Your task to perform on an android device: uninstall "Google News" Image 0: 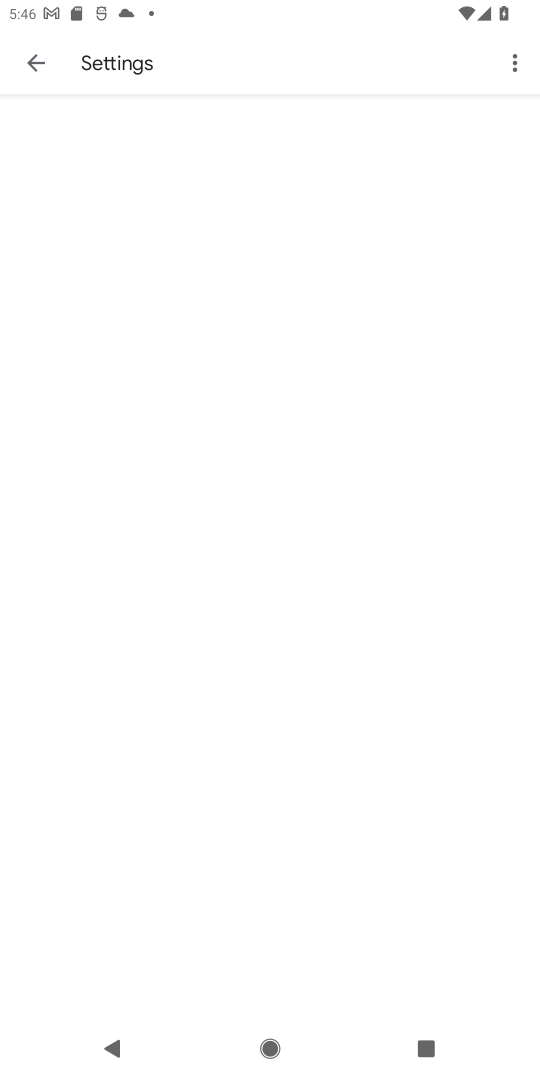
Step 0: click (44, 51)
Your task to perform on an android device: uninstall "Google News" Image 1: 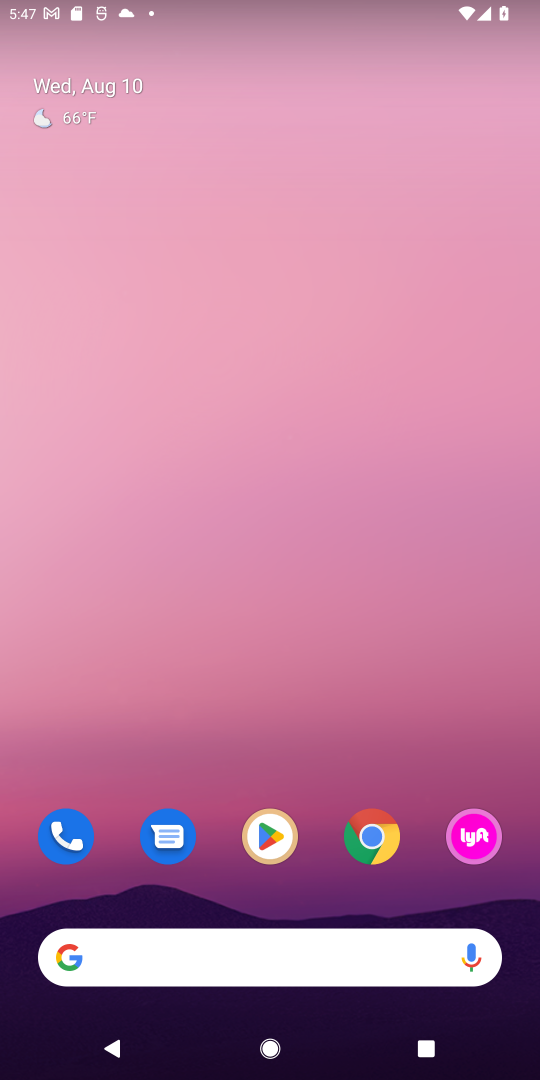
Step 1: drag from (263, 922) to (245, 24)
Your task to perform on an android device: uninstall "Google News" Image 2: 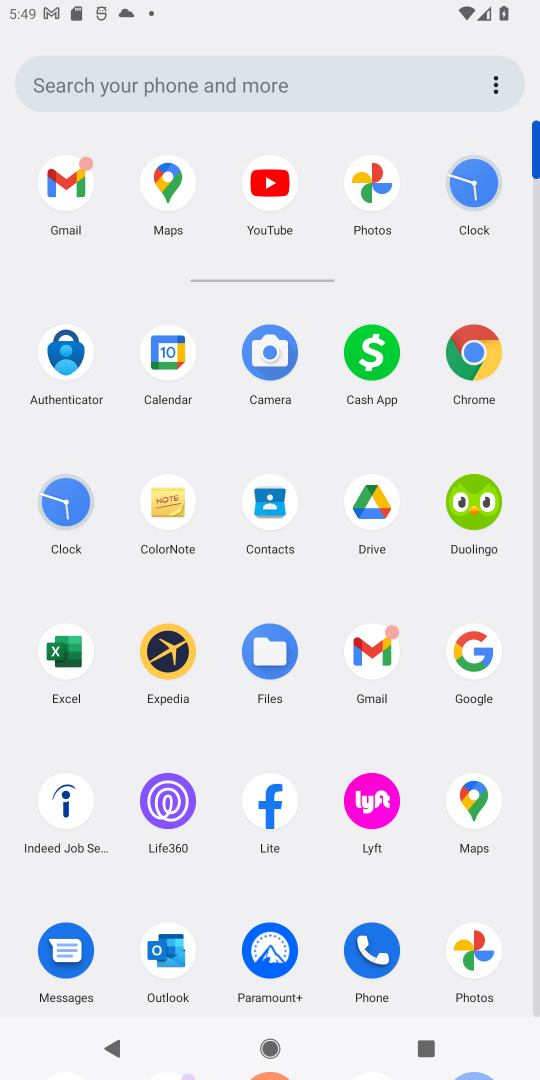
Step 2: drag from (174, 899) to (160, 104)
Your task to perform on an android device: uninstall "Google News" Image 3: 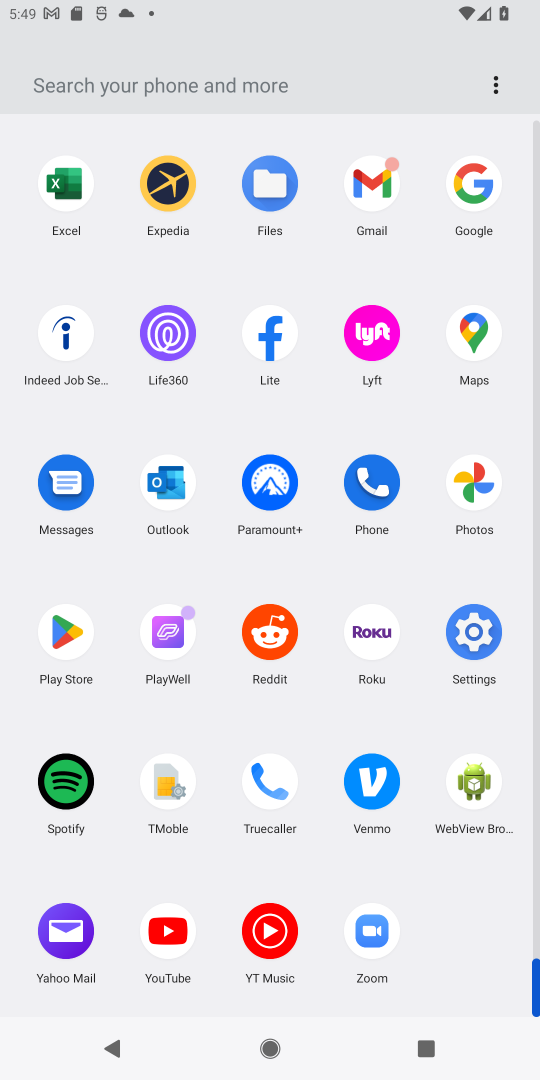
Step 3: click (56, 627)
Your task to perform on an android device: uninstall "Google News" Image 4: 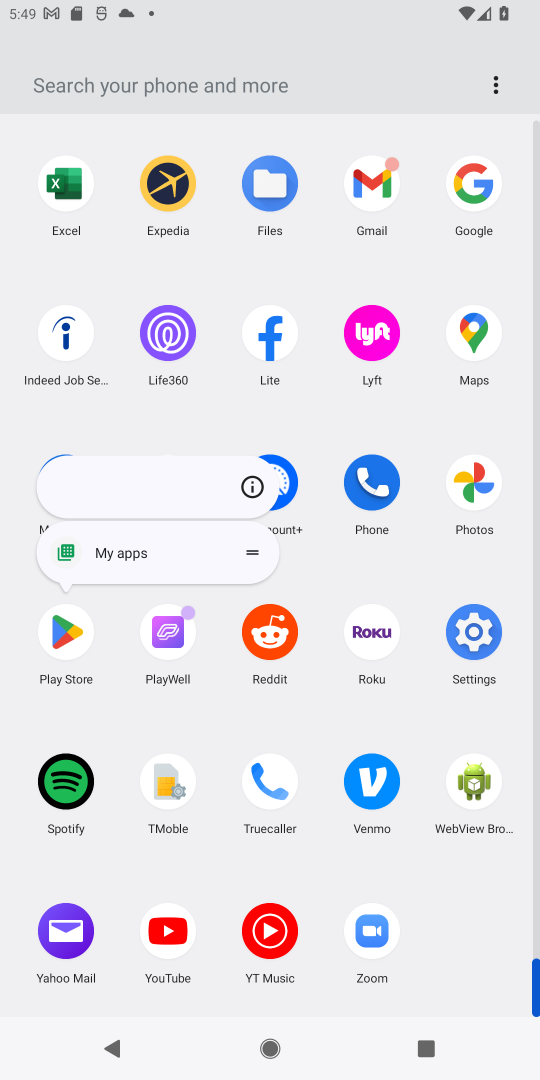
Step 4: click (45, 623)
Your task to perform on an android device: uninstall "Google News" Image 5: 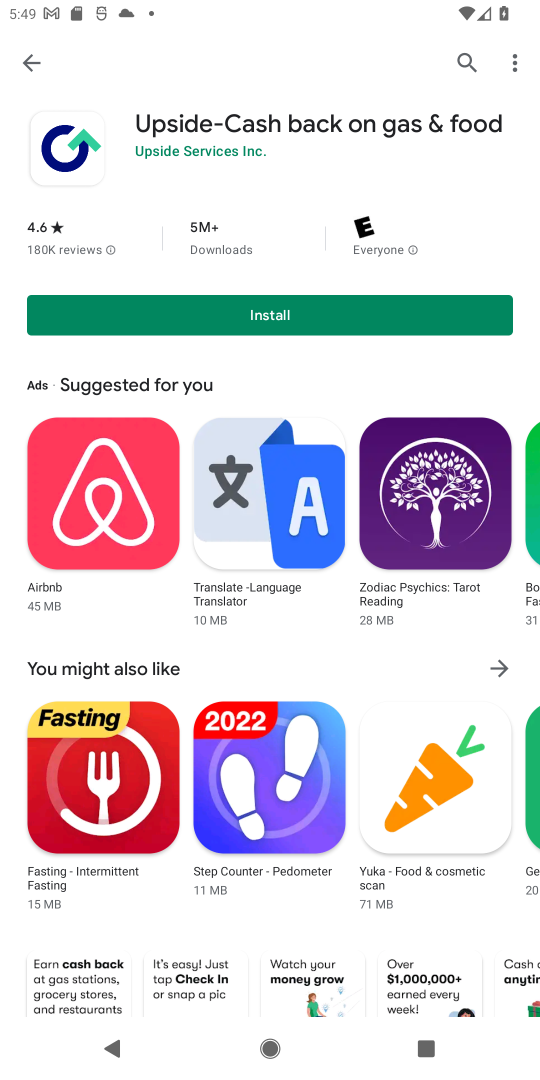
Step 5: click (49, 65)
Your task to perform on an android device: uninstall "Google News" Image 6: 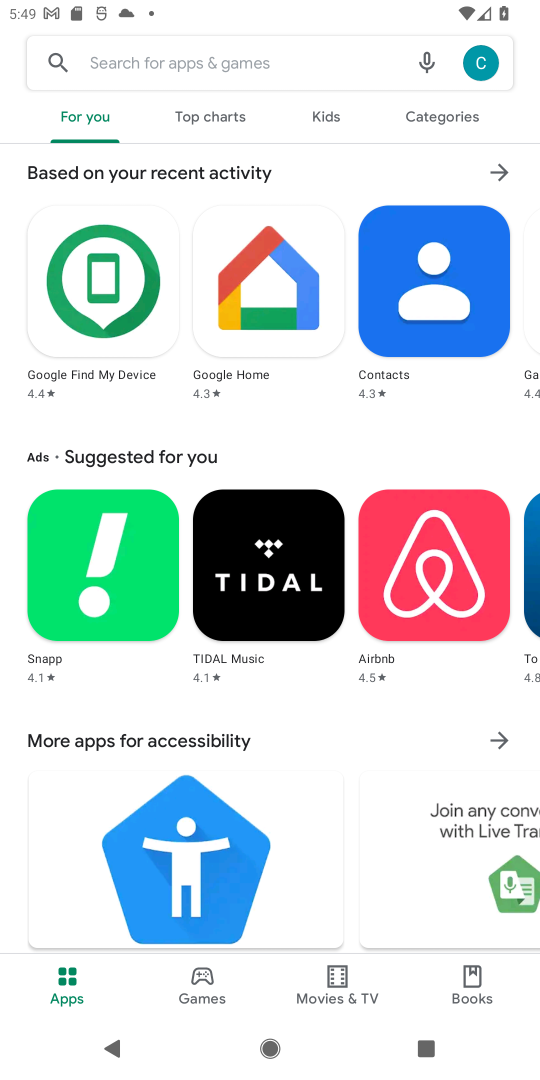
Step 6: click (257, 51)
Your task to perform on an android device: uninstall "Google News" Image 7: 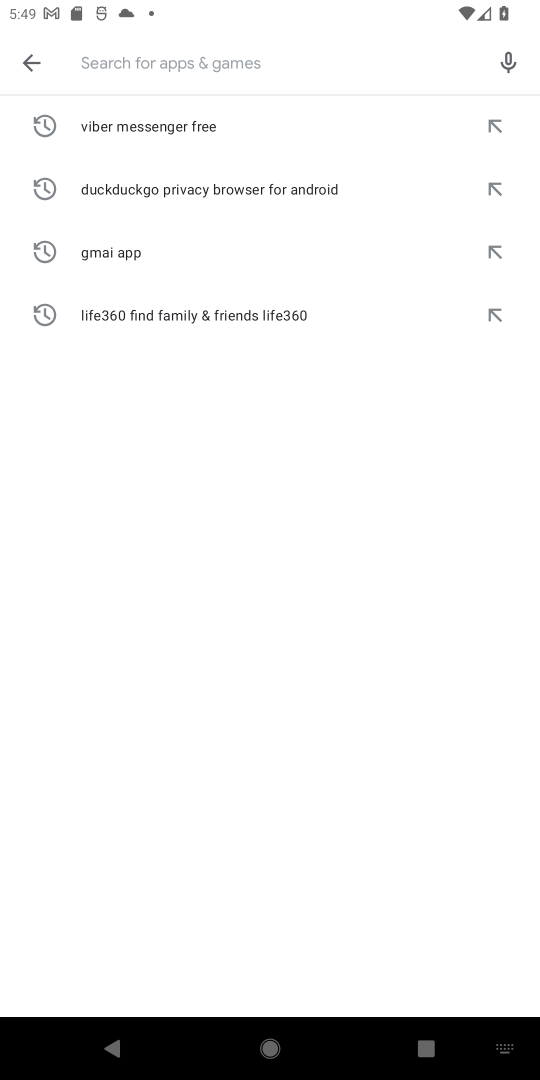
Step 7: type "Google News" "
Your task to perform on an android device: uninstall "Google News" Image 8: 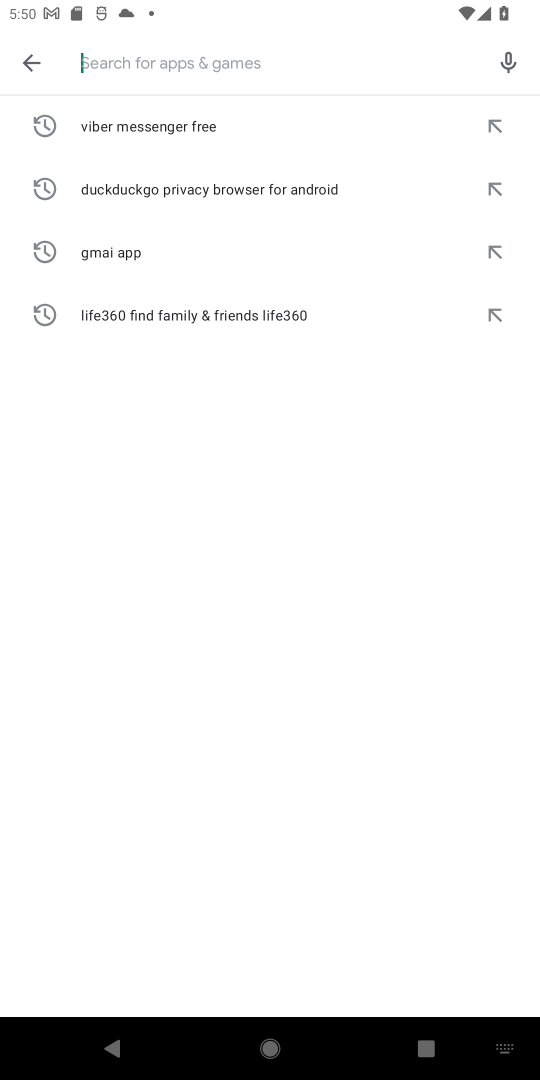
Step 8: click (314, 59)
Your task to perform on an android device: uninstall "Google News" Image 9: 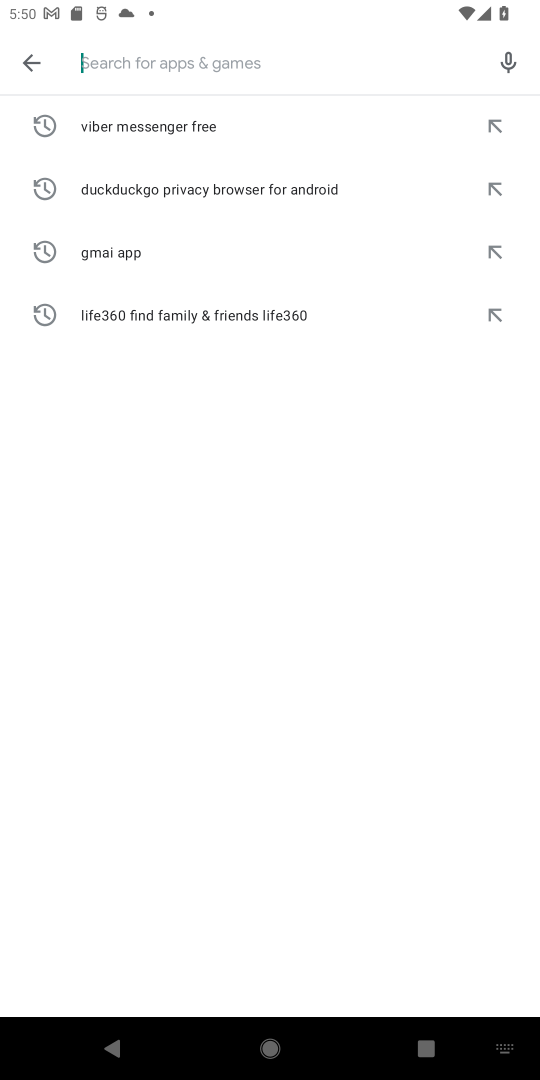
Step 9: type ""Google News" "
Your task to perform on an android device: uninstall "Google News" Image 10: 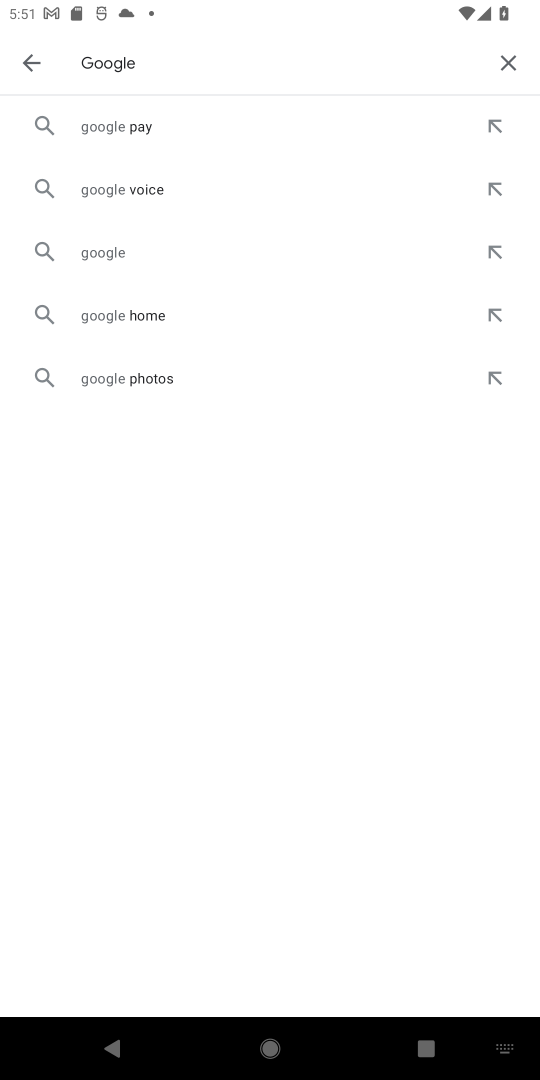
Step 10: click (244, 46)
Your task to perform on an android device: uninstall "Google News" Image 11: 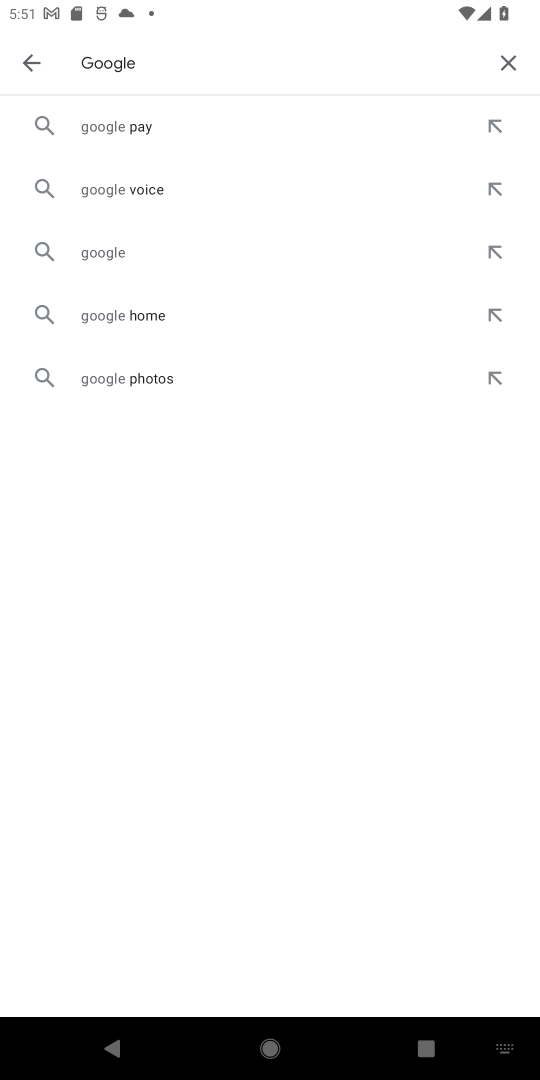
Step 11: type " news"
Your task to perform on an android device: uninstall "Google News" Image 12: 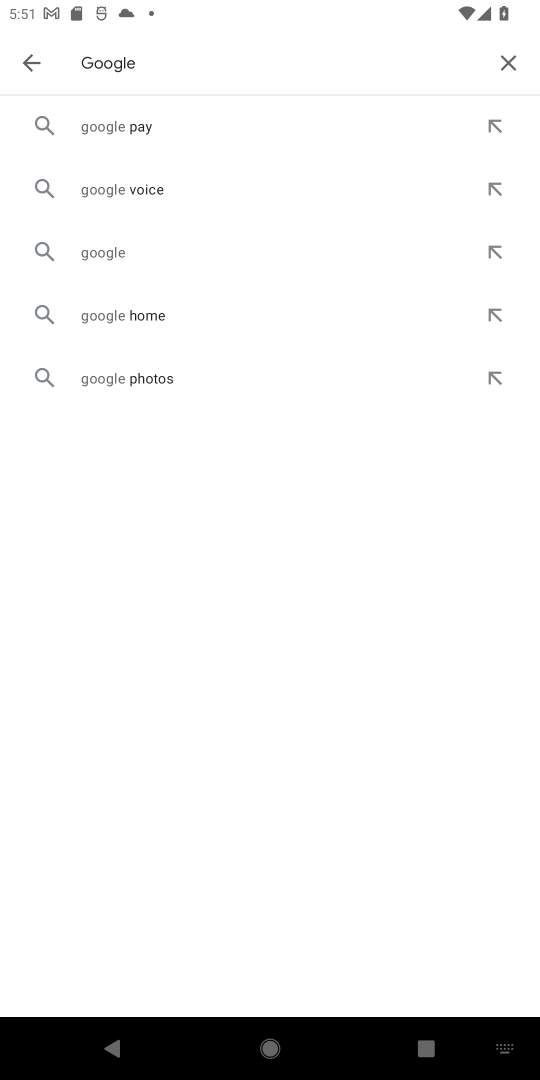
Step 12: click (34, 65)
Your task to perform on an android device: uninstall "Google News" Image 13: 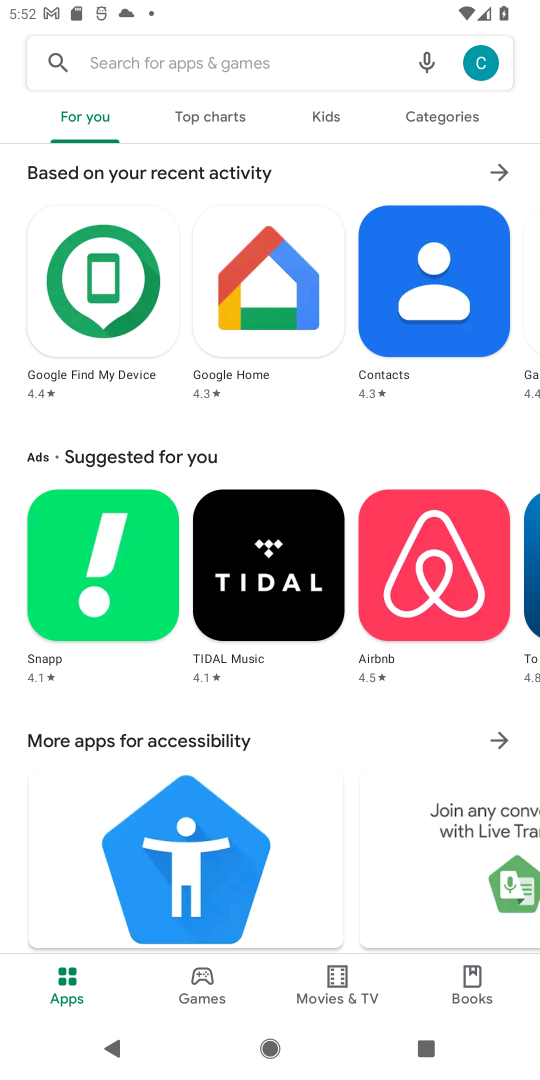
Step 13: click (231, 51)
Your task to perform on an android device: uninstall "Google News" Image 14: 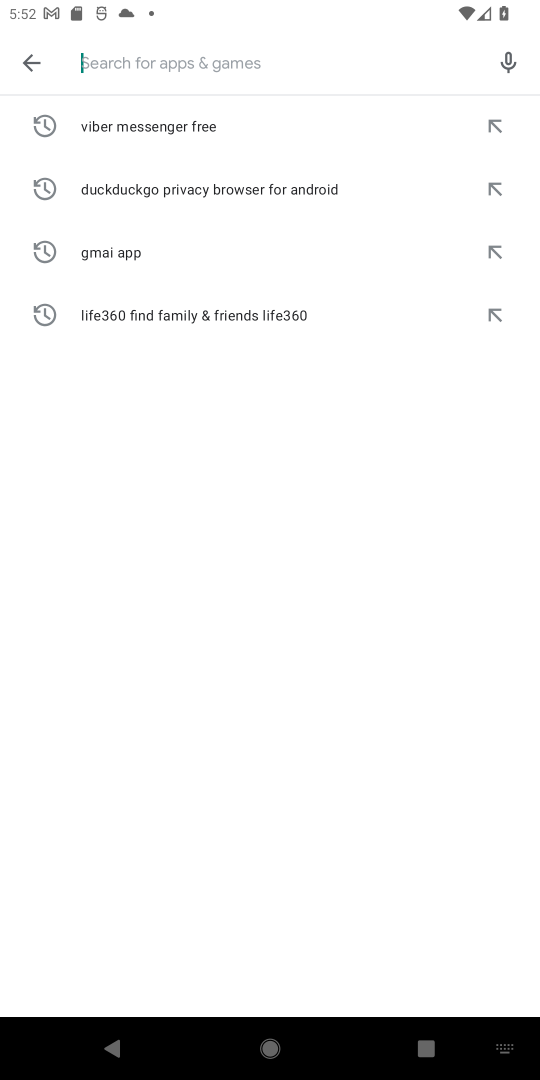
Step 14: type "Google News "
Your task to perform on an android device: uninstall "Google News" Image 15: 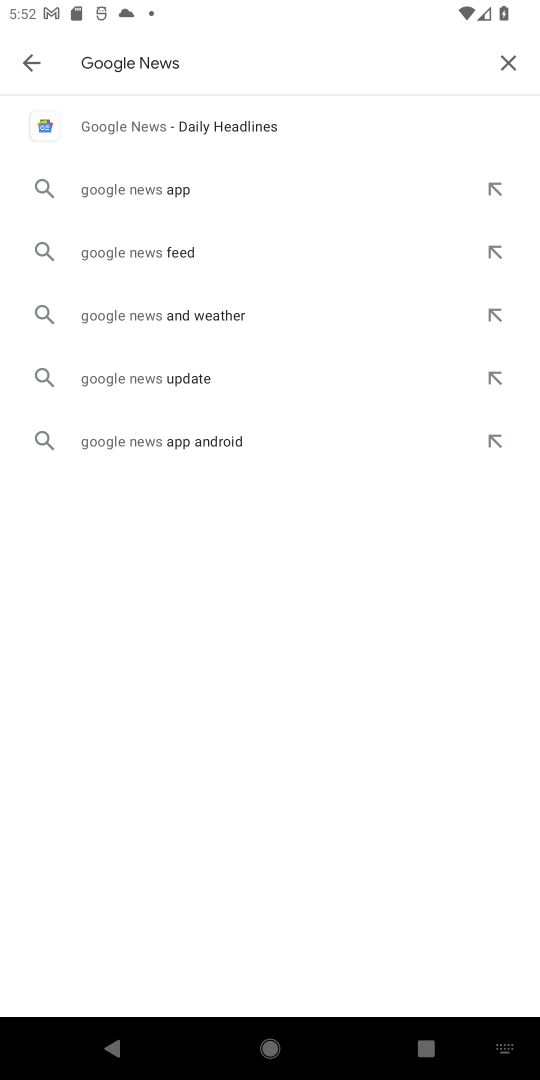
Step 15: click (142, 132)
Your task to perform on an android device: uninstall "Google News" Image 16: 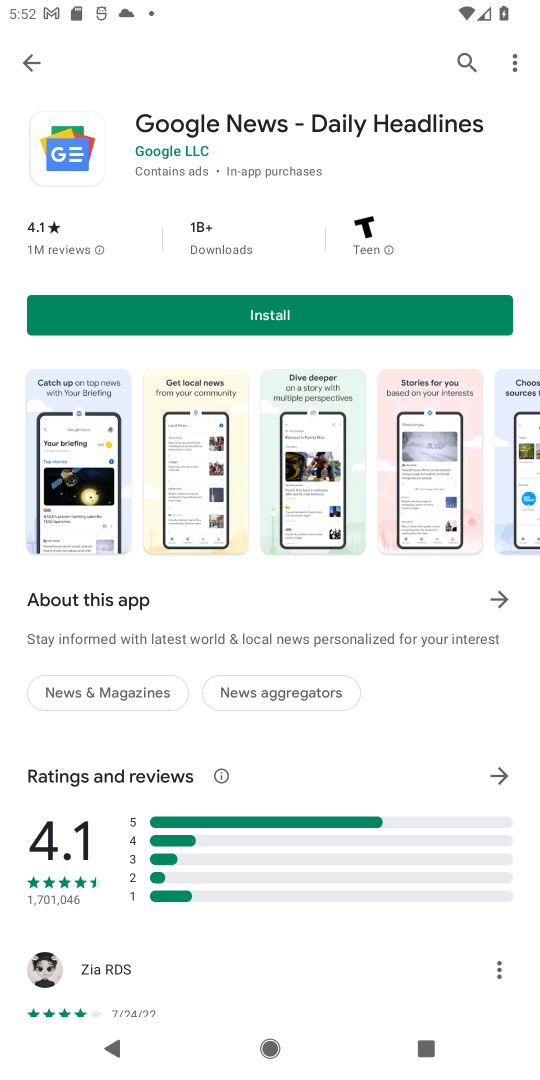
Step 16: task complete